Your task to perform on an android device: uninstall "Skype" Image 0: 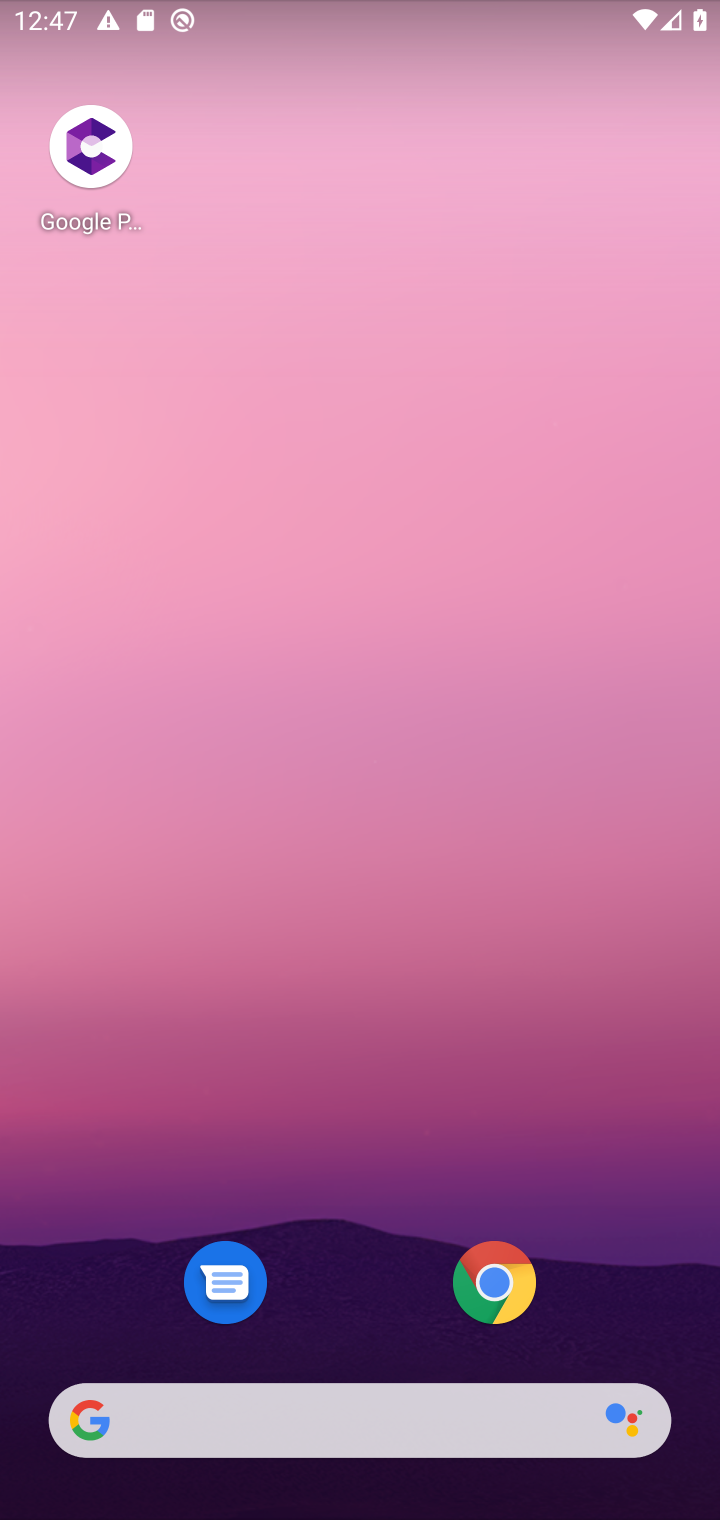
Step 0: drag from (331, 1361) to (205, 454)
Your task to perform on an android device: uninstall "Skype" Image 1: 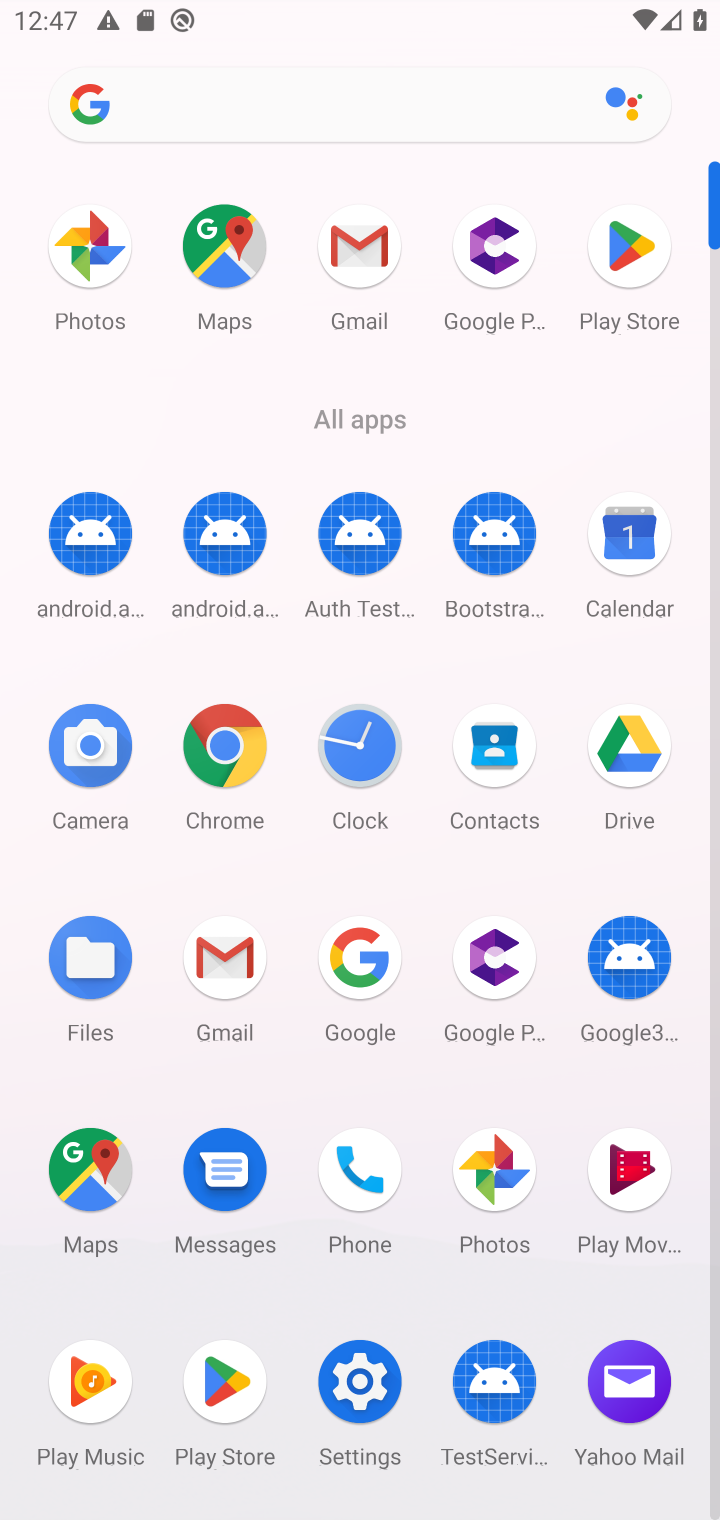
Step 1: click (238, 1376)
Your task to perform on an android device: uninstall "Skype" Image 2: 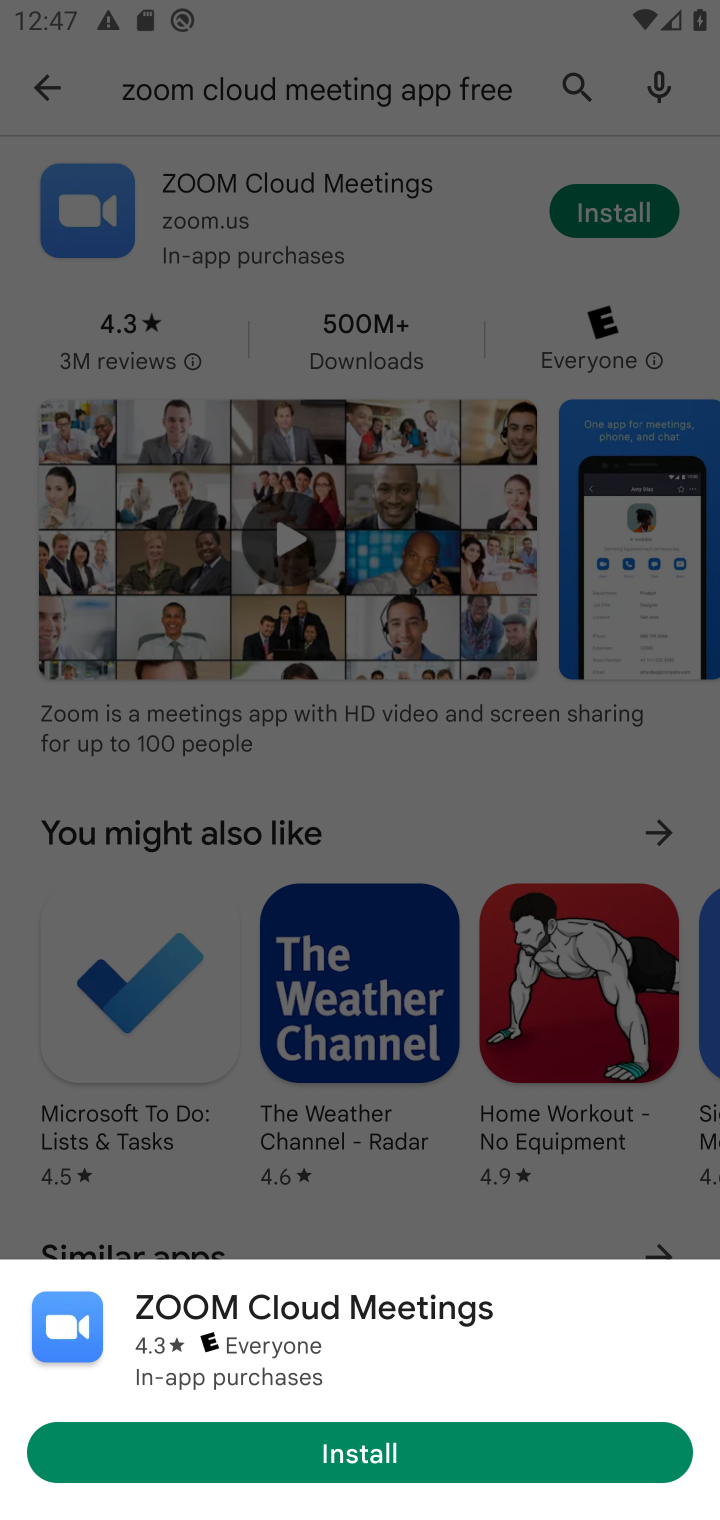
Step 2: click (15, 143)
Your task to perform on an android device: uninstall "Skype" Image 3: 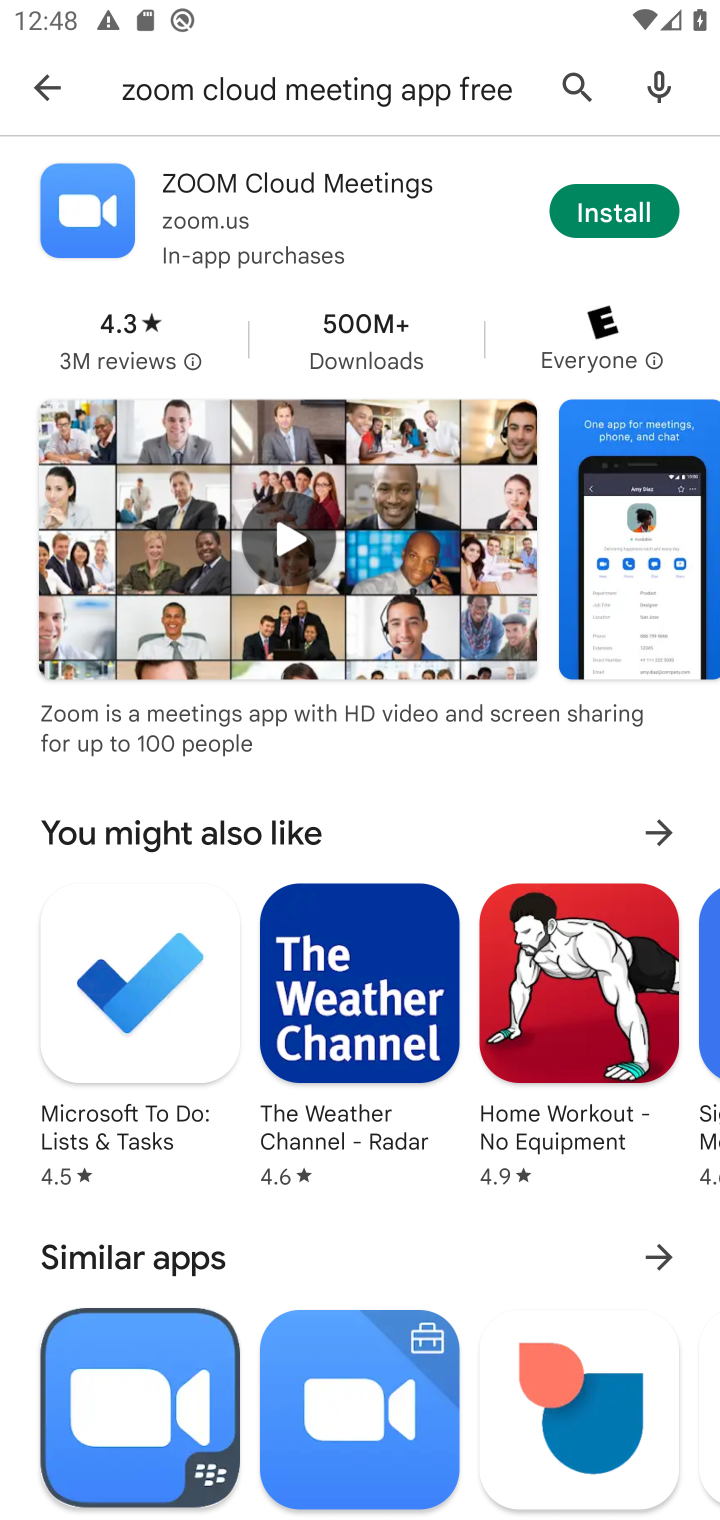
Step 3: click (21, 93)
Your task to perform on an android device: uninstall "Skype" Image 4: 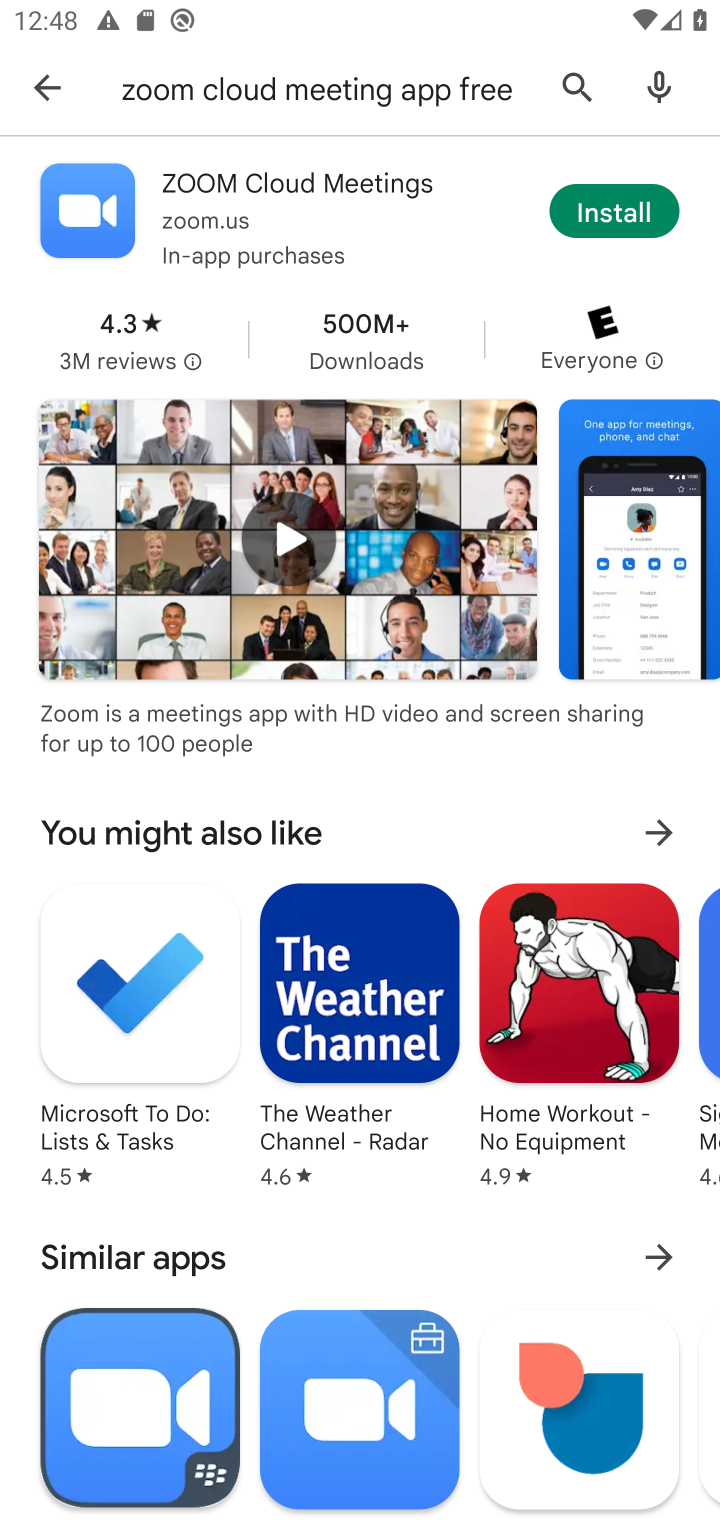
Step 4: click (32, 105)
Your task to perform on an android device: uninstall "Skype" Image 5: 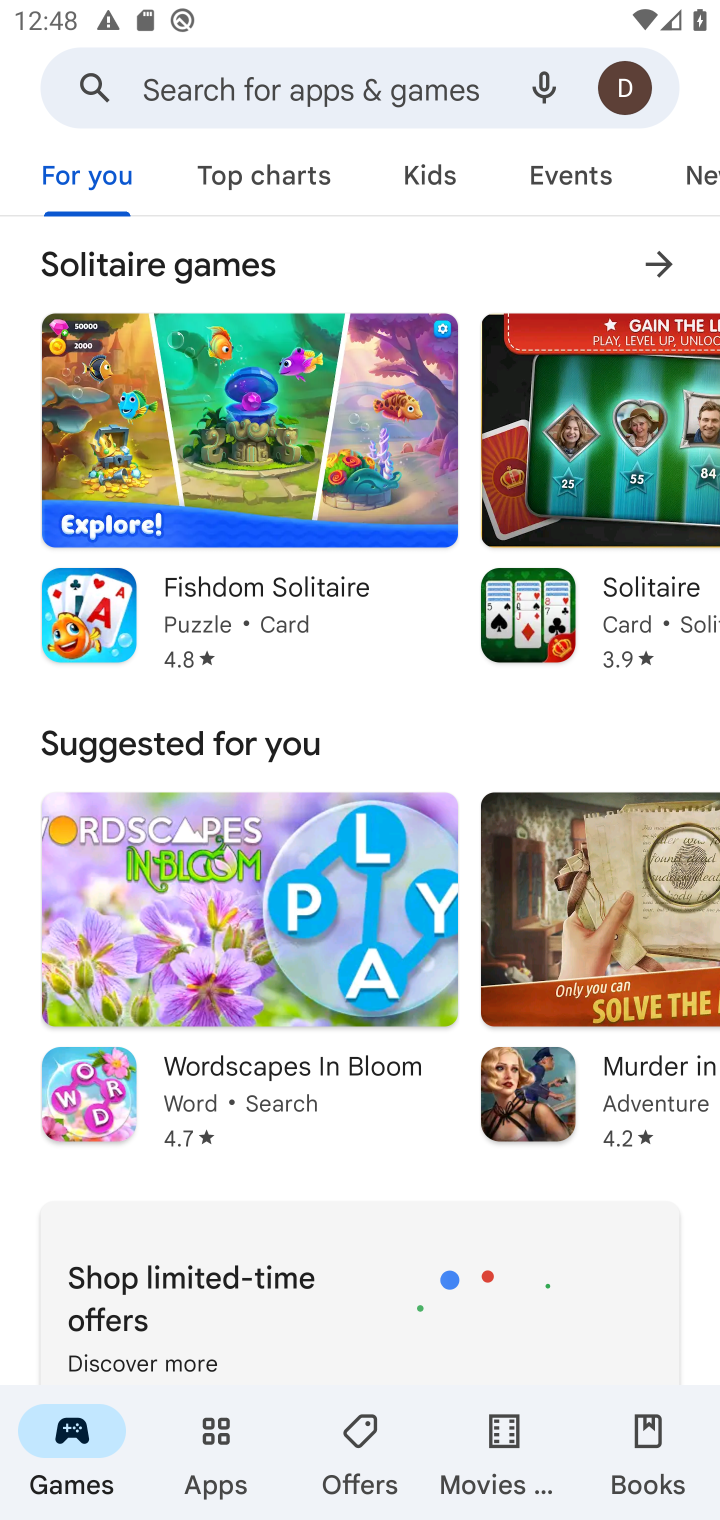
Step 5: click (196, 91)
Your task to perform on an android device: uninstall "Skype" Image 6: 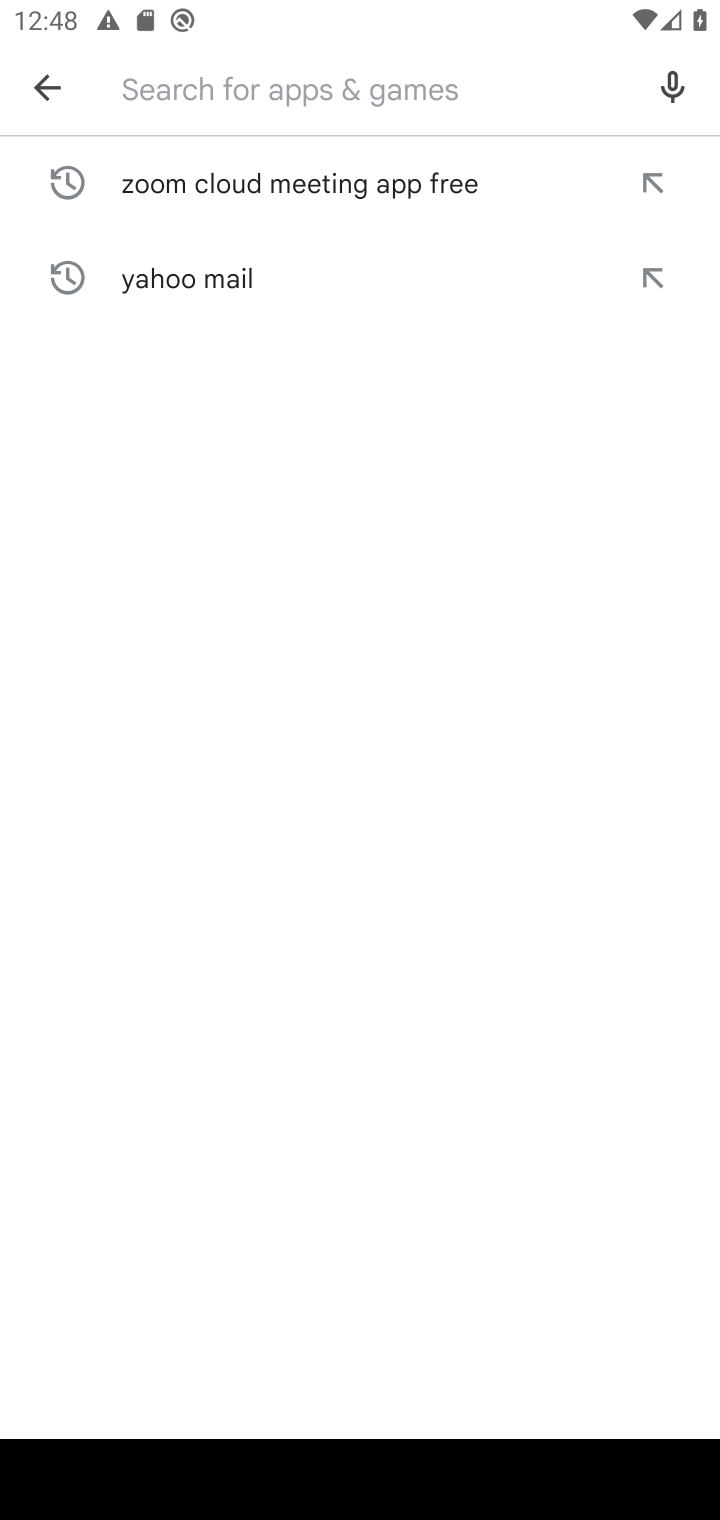
Step 6: type "Skype"
Your task to perform on an android device: uninstall "Skype" Image 7: 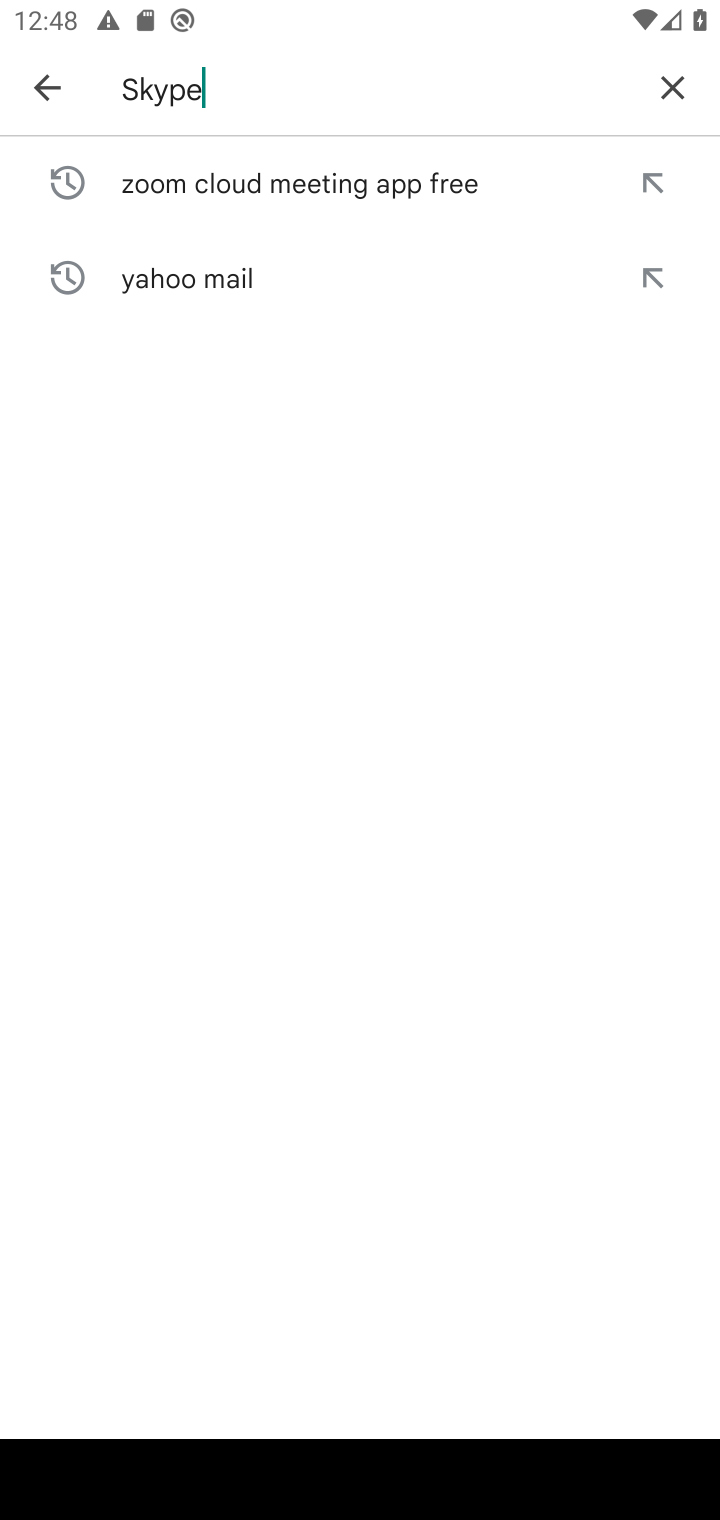
Step 7: type ""
Your task to perform on an android device: uninstall "Skype" Image 8: 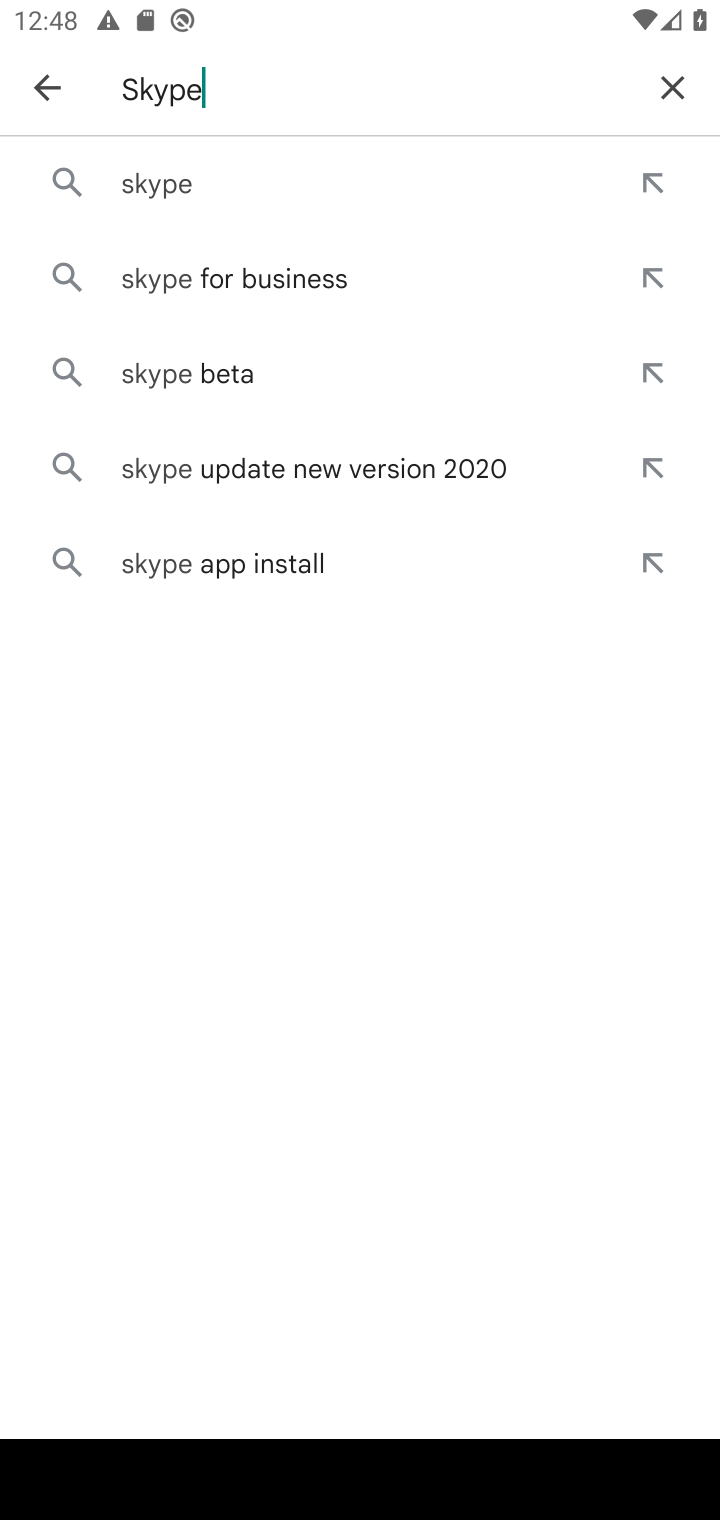
Step 8: click (147, 168)
Your task to perform on an android device: uninstall "Skype" Image 9: 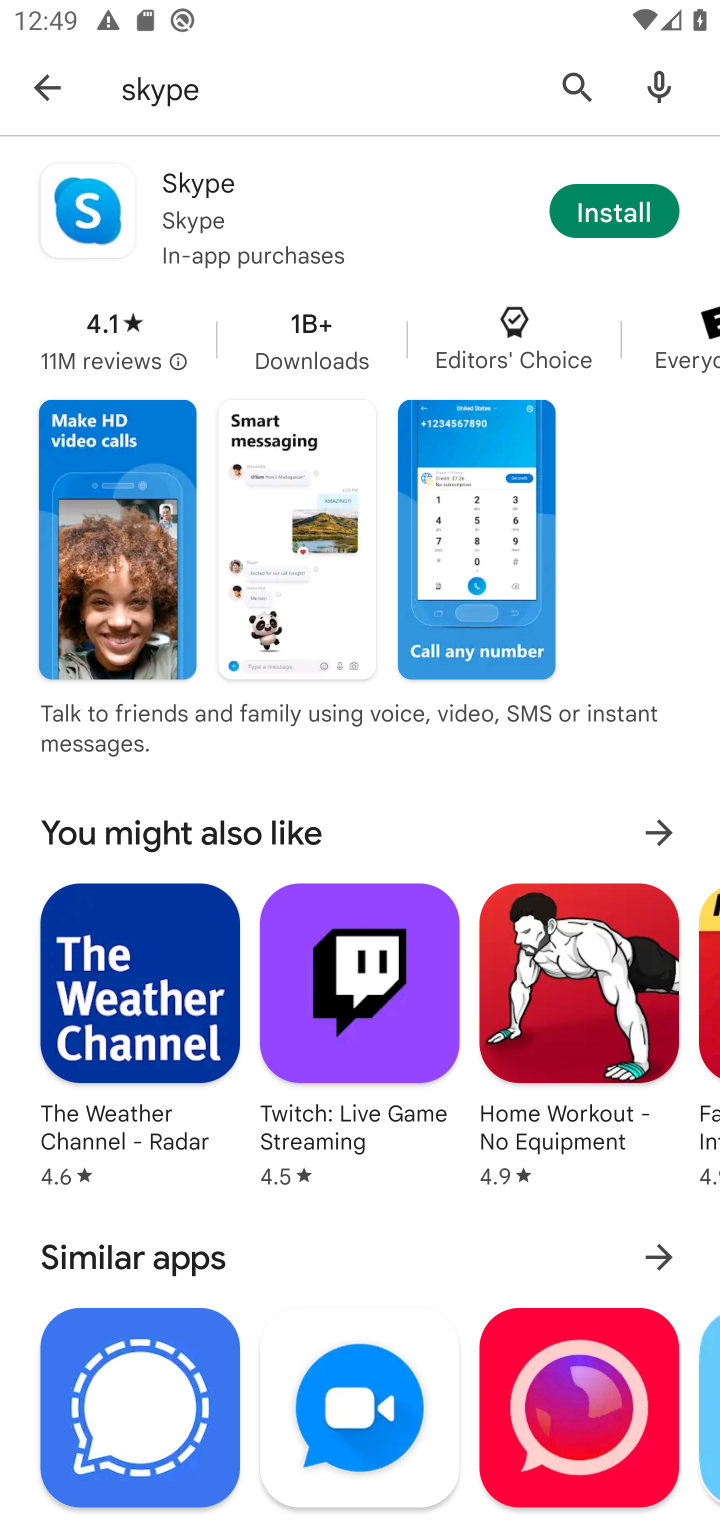
Step 9: click (332, 206)
Your task to perform on an android device: uninstall "Skype" Image 10: 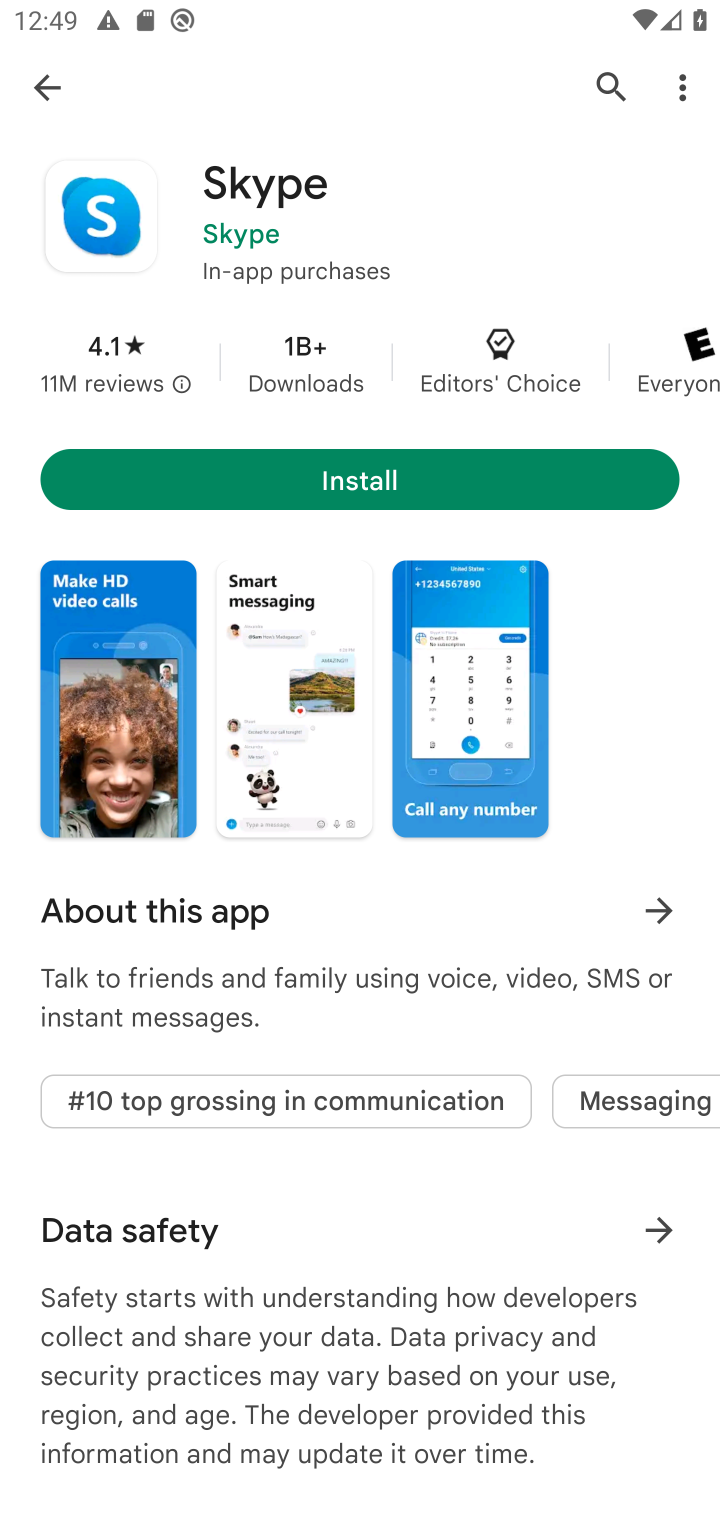
Step 10: task complete